Your task to perform on an android device: turn off notifications in google photos Image 0: 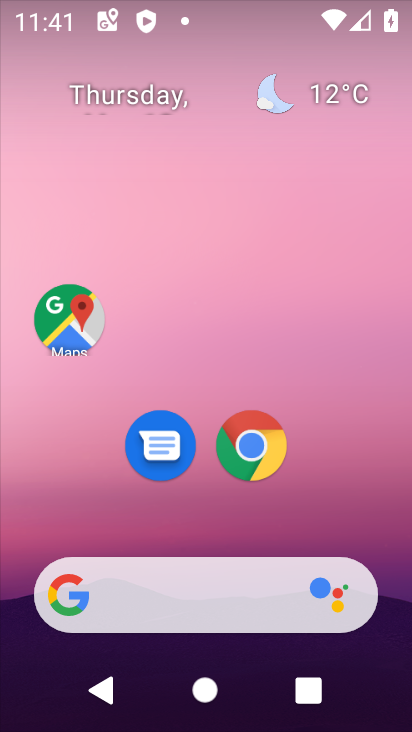
Step 0: drag from (43, 398) to (401, 313)
Your task to perform on an android device: turn off notifications in google photos Image 1: 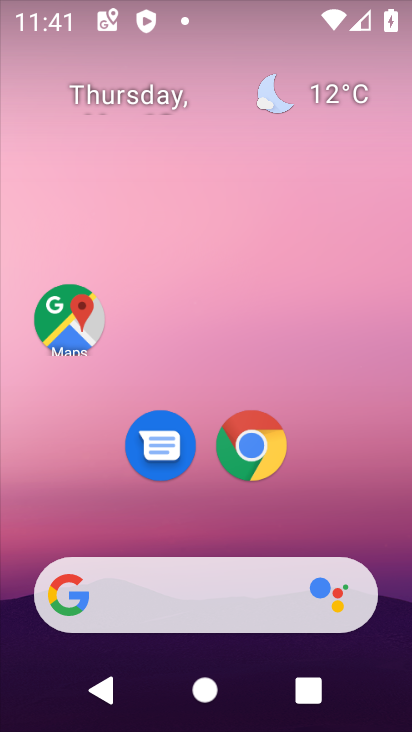
Step 1: drag from (213, 568) to (149, 65)
Your task to perform on an android device: turn off notifications in google photos Image 2: 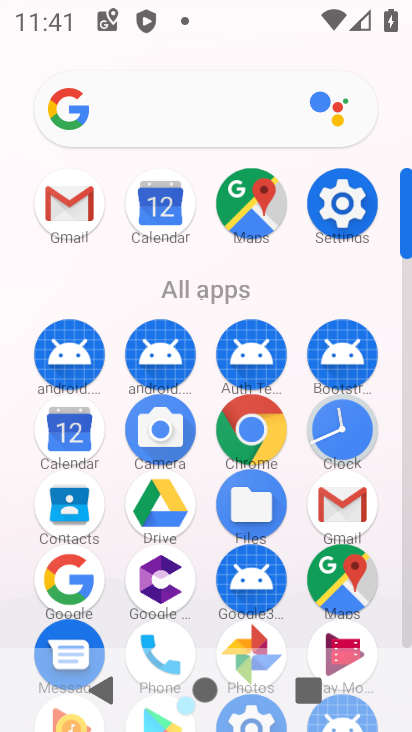
Step 2: click (262, 645)
Your task to perform on an android device: turn off notifications in google photos Image 3: 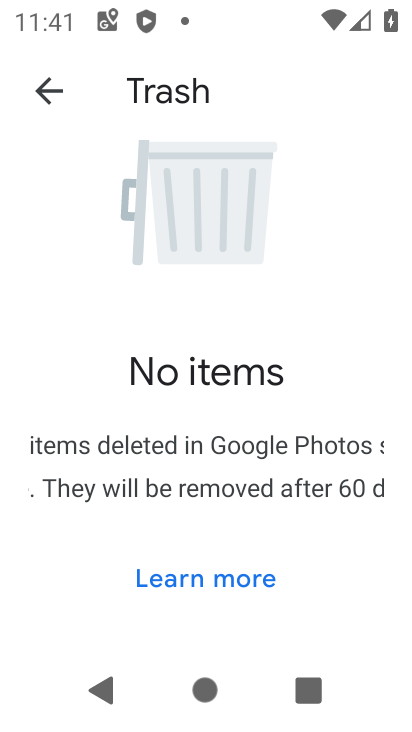
Step 3: click (34, 106)
Your task to perform on an android device: turn off notifications in google photos Image 4: 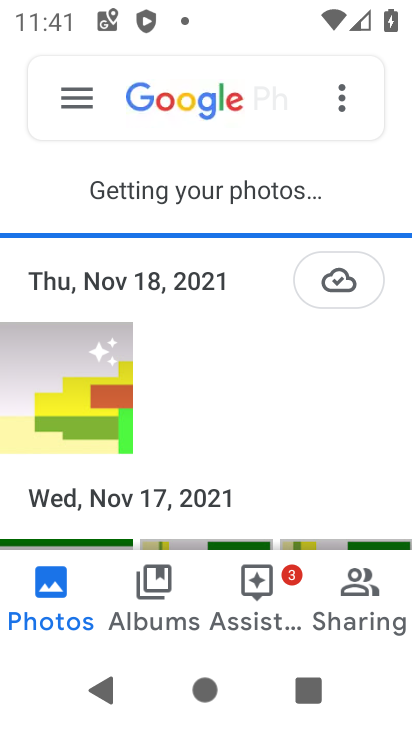
Step 4: click (56, 97)
Your task to perform on an android device: turn off notifications in google photos Image 5: 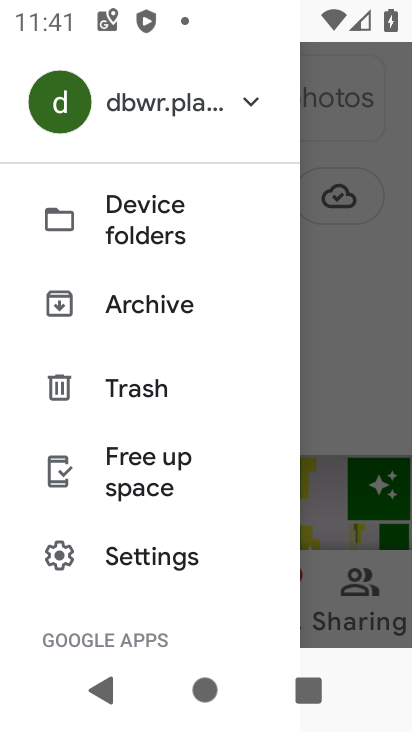
Step 5: click (141, 565)
Your task to perform on an android device: turn off notifications in google photos Image 6: 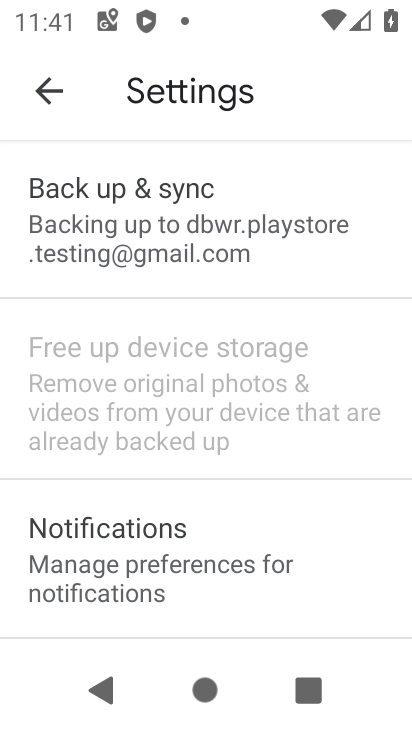
Step 6: click (179, 581)
Your task to perform on an android device: turn off notifications in google photos Image 7: 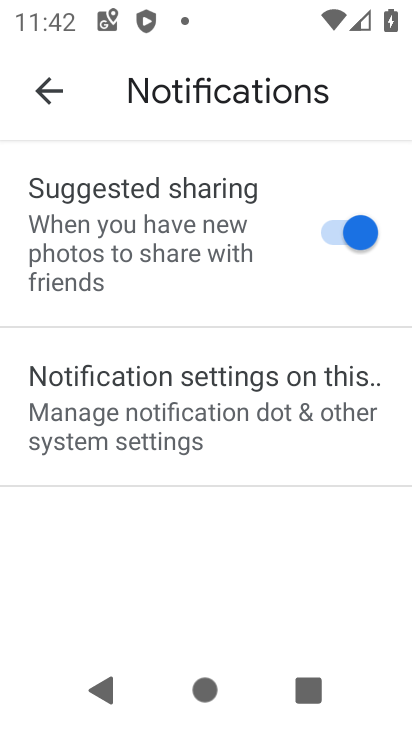
Step 7: click (234, 419)
Your task to perform on an android device: turn off notifications in google photos Image 8: 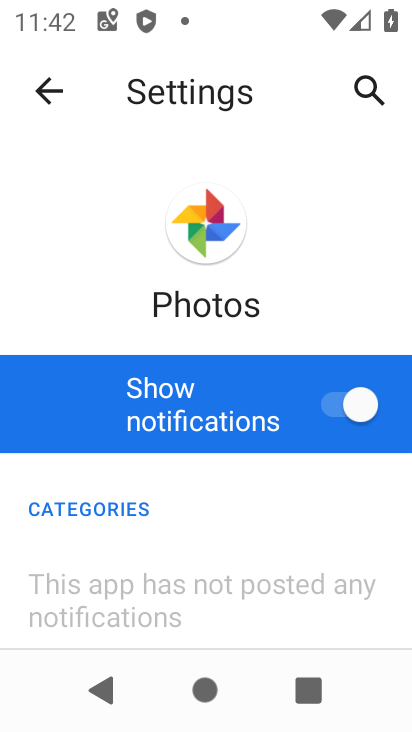
Step 8: click (334, 402)
Your task to perform on an android device: turn off notifications in google photos Image 9: 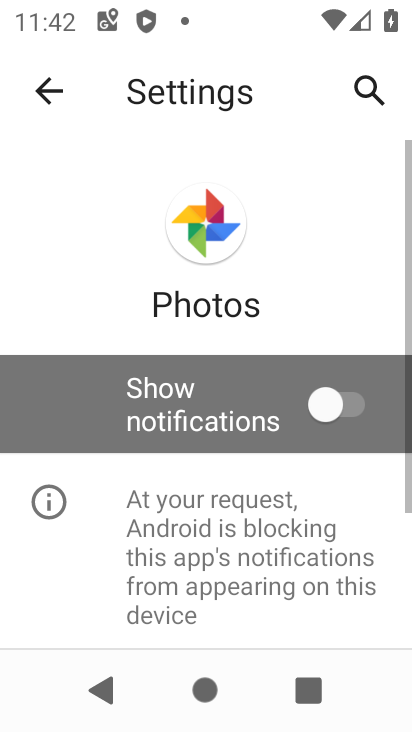
Step 9: task complete